Your task to perform on an android device: change keyboard looks Image 0: 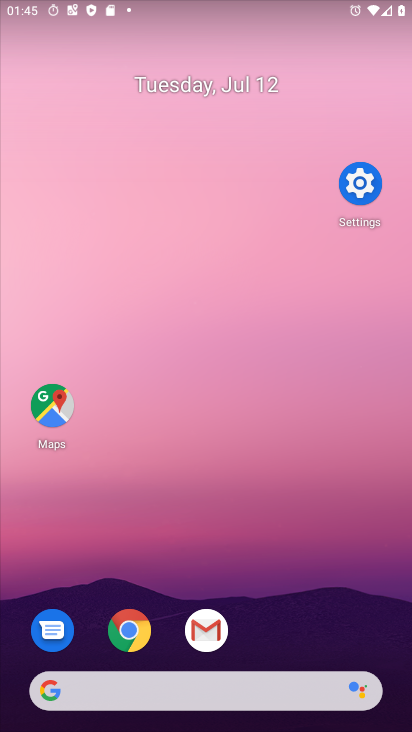
Step 0: drag from (249, 707) to (160, 247)
Your task to perform on an android device: change keyboard looks Image 1: 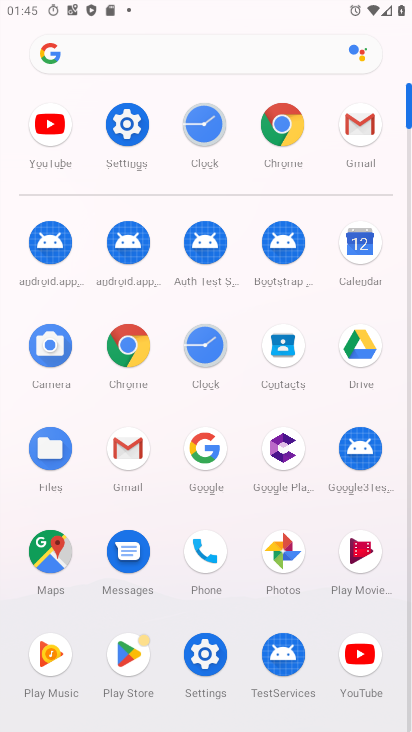
Step 1: click (141, 137)
Your task to perform on an android device: change keyboard looks Image 2: 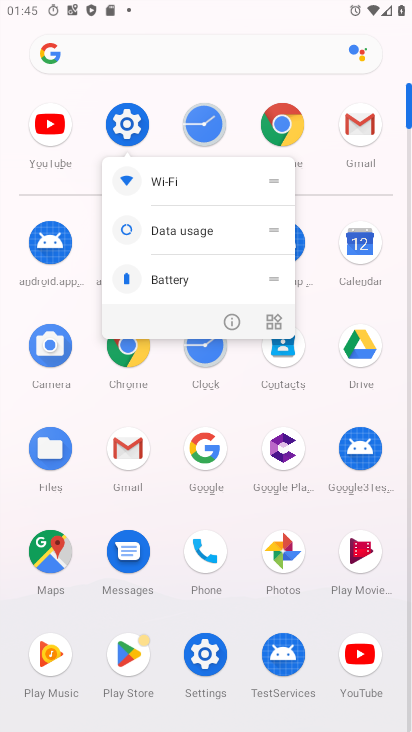
Step 2: click (127, 128)
Your task to perform on an android device: change keyboard looks Image 3: 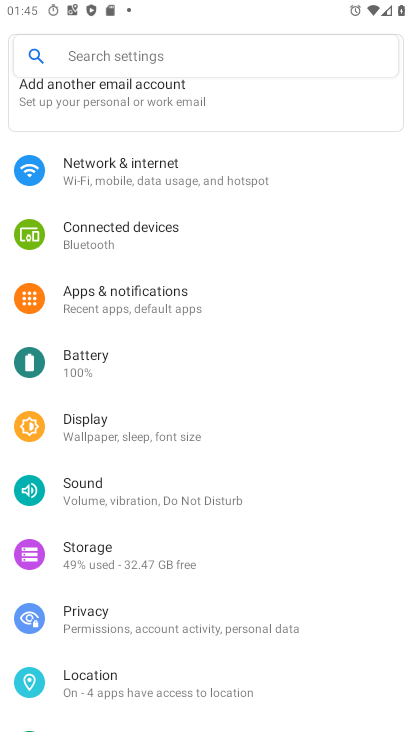
Step 3: click (115, 52)
Your task to perform on an android device: change keyboard looks Image 4: 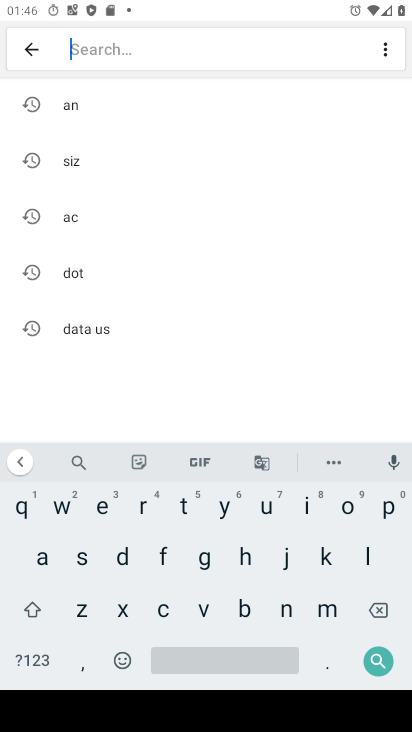
Step 4: click (323, 555)
Your task to perform on an android device: change keyboard looks Image 5: 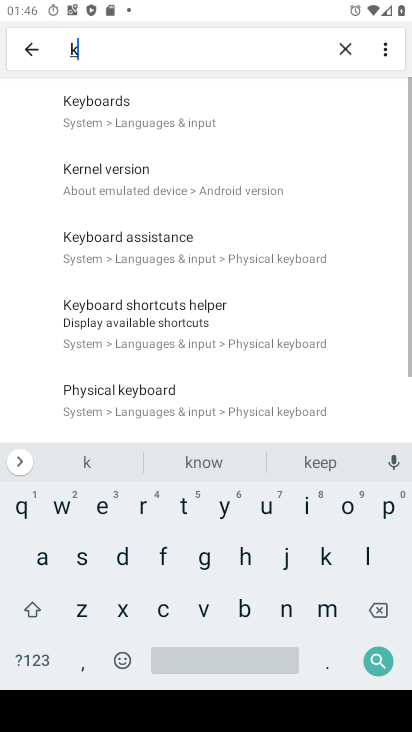
Step 5: click (99, 506)
Your task to perform on an android device: change keyboard looks Image 6: 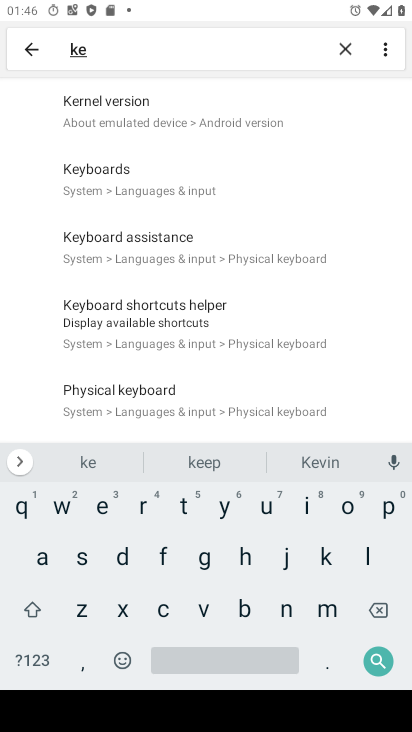
Step 6: click (95, 166)
Your task to perform on an android device: change keyboard looks Image 7: 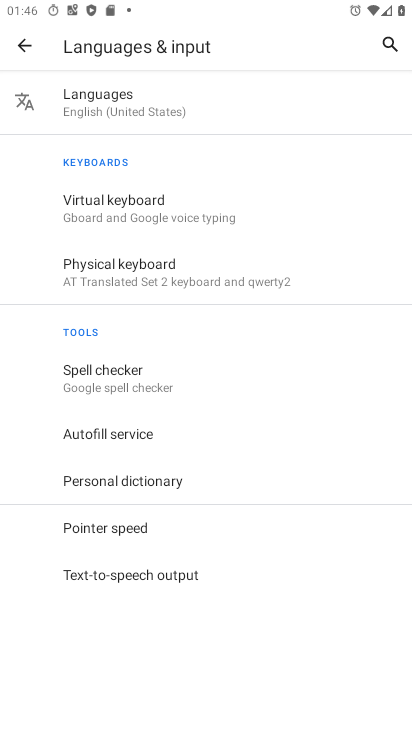
Step 7: click (107, 206)
Your task to perform on an android device: change keyboard looks Image 8: 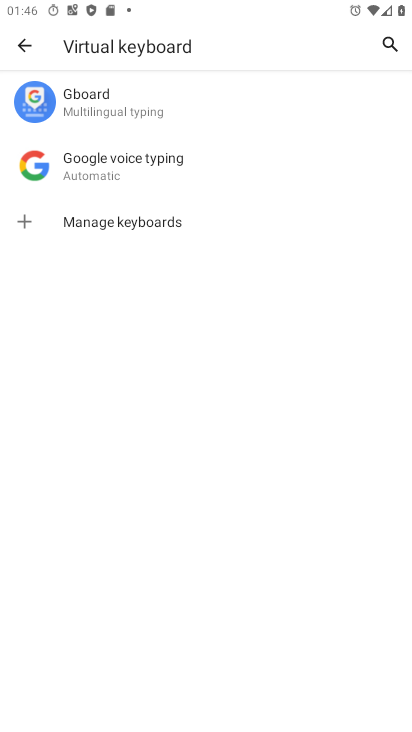
Step 8: click (129, 104)
Your task to perform on an android device: change keyboard looks Image 9: 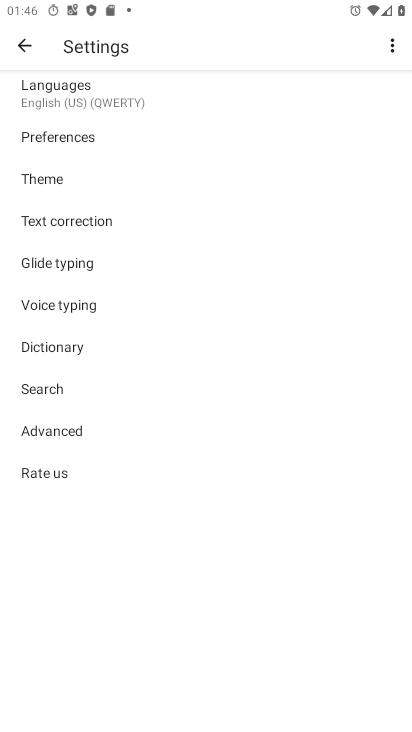
Step 9: click (74, 179)
Your task to perform on an android device: change keyboard looks Image 10: 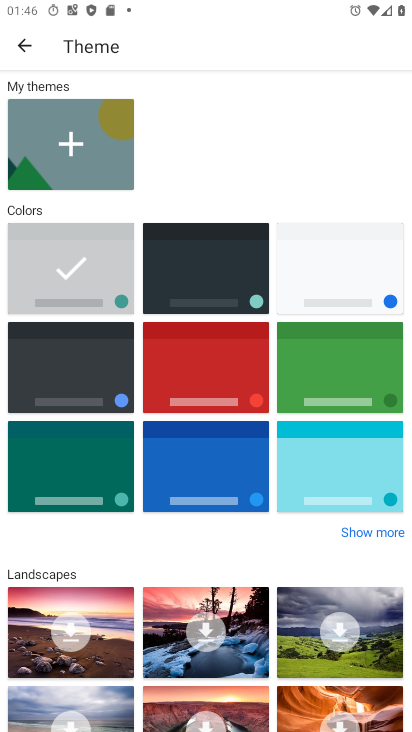
Step 10: click (179, 271)
Your task to perform on an android device: change keyboard looks Image 11: 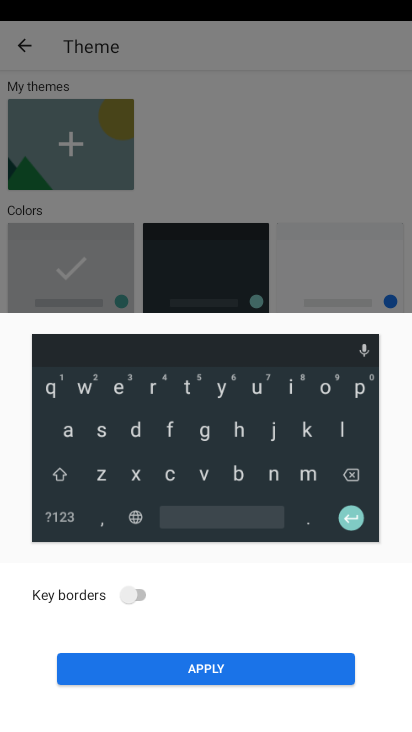
Step 11: click (134, 595)
Your task to perform on an android device: change keyboard looks Image 12: 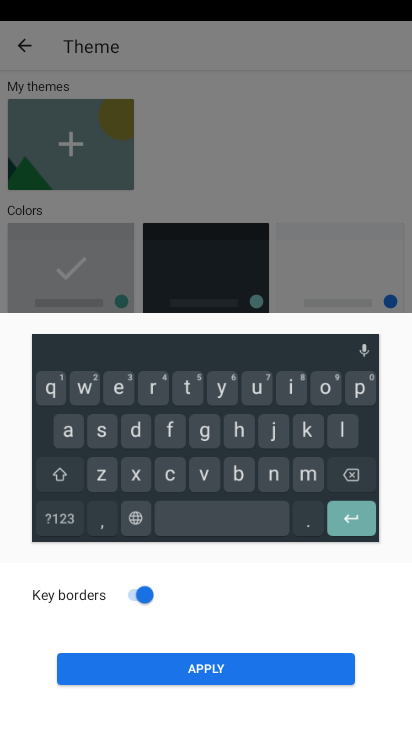
Step 12: click (191, 668)
Your task to perform on an android device: change keyboard looks Image 13: 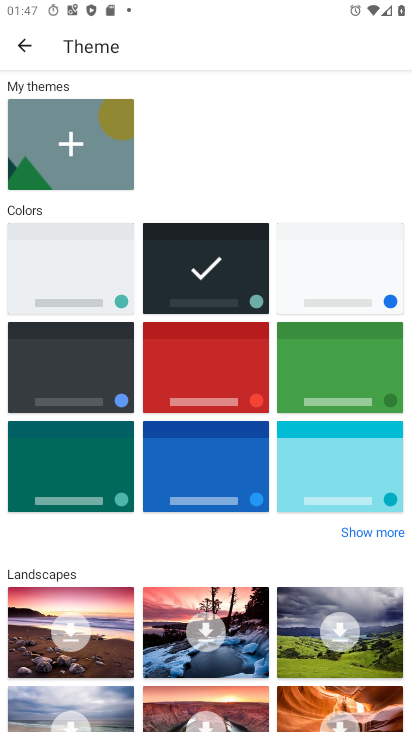
Step 13: task complete